Your task to perform on an android device: check battery use Image 0: 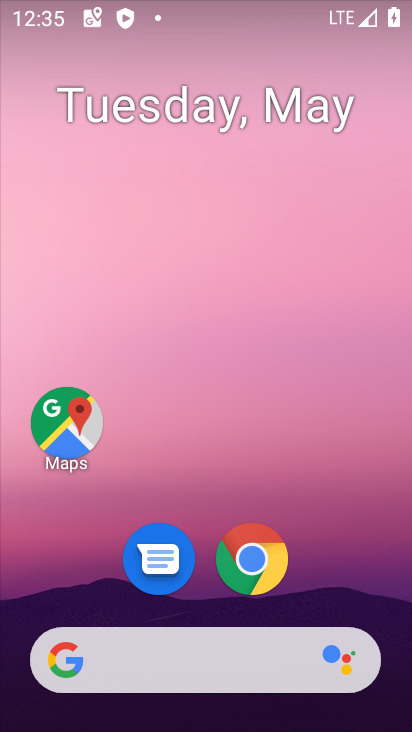
Step 0: drag from (392, 557) to (240, 49)
Your task to perform on an android device: check battery use Image 1: 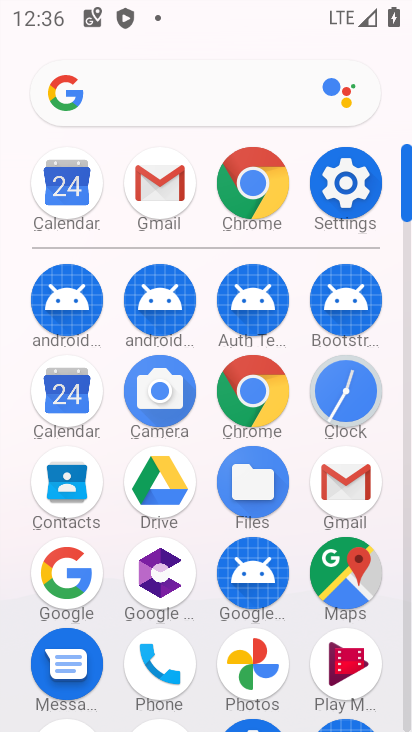
Step 1: click (372, 202)
Your task to perform on an android device: check battery use Image 2: 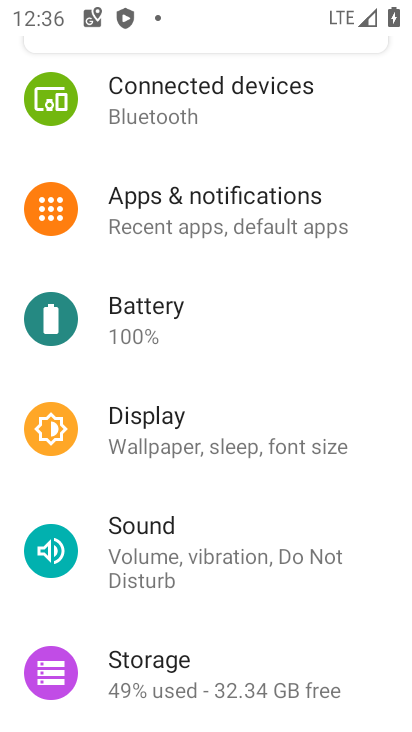
Step 2: click (218, 306)
Your task to perform on an android device: check battery use Image 3: 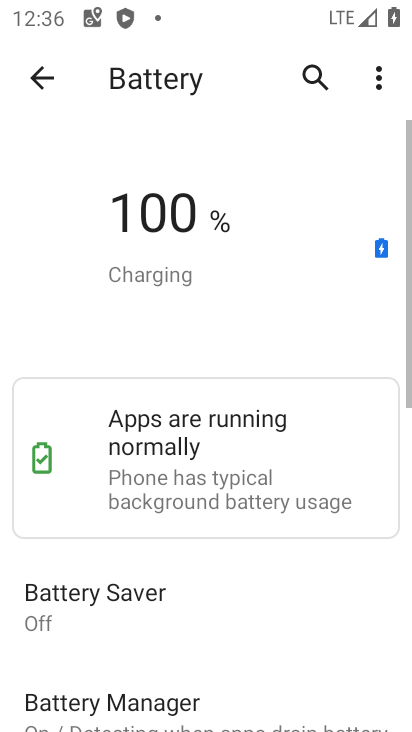
Step 3: task complete